Your task to perform on an android device: Open Chrome and go to settings Image 0: 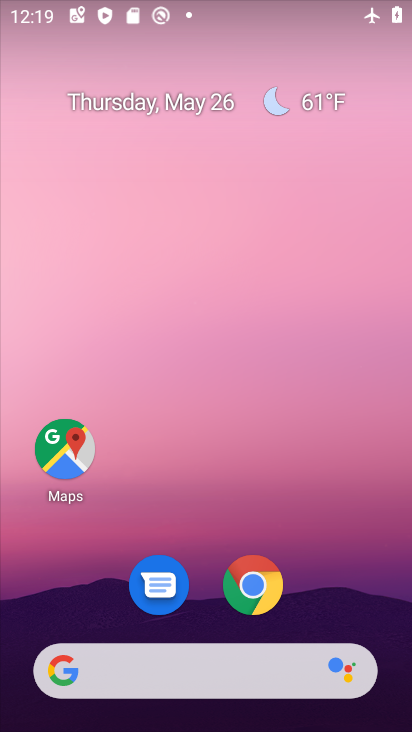
Step 0: click (257, 574)
Your task to perform on an android device: Open Chrome and go to settings Image 1: 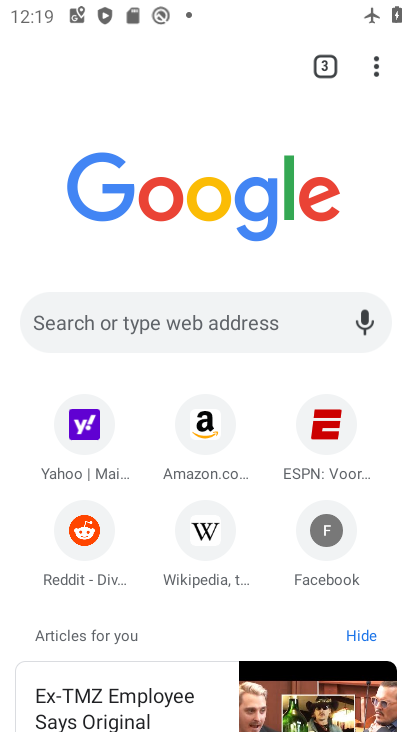
Step 1: click (372, 78)
Your task to perform on an android device: Open Chrome and go to settings Image 2: 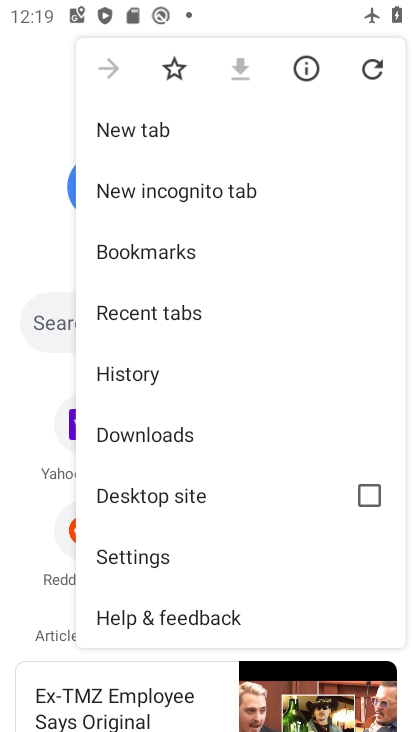
Step 2: click (155, 546)
Your task to perform on an android device: Open Chrome and go to settings Image 3: 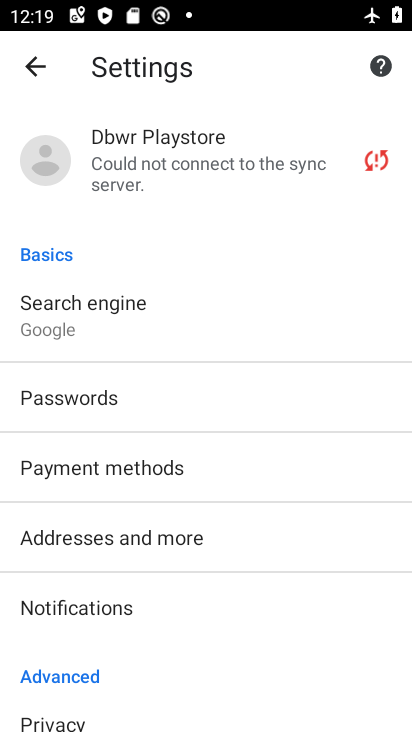
Step 3: task complete